Your task to perform on an android device: turn on translation in the chrome app Image 0: 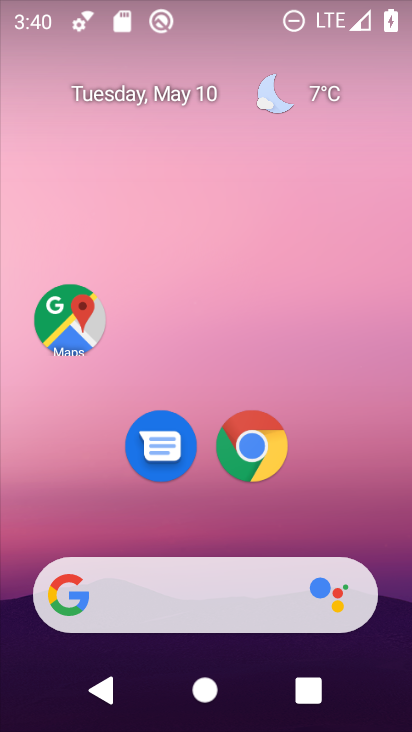
Step 0: click (259, 439)
Your task to perform on an android device: turn on translation in the chrome app Image 1: 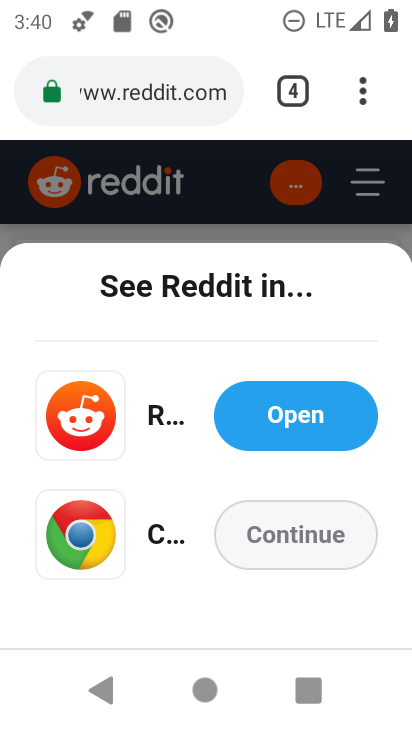
Step 1: click (361, 87)
Your task to perform on an android device: turn on translation in the chrome app Image 2: 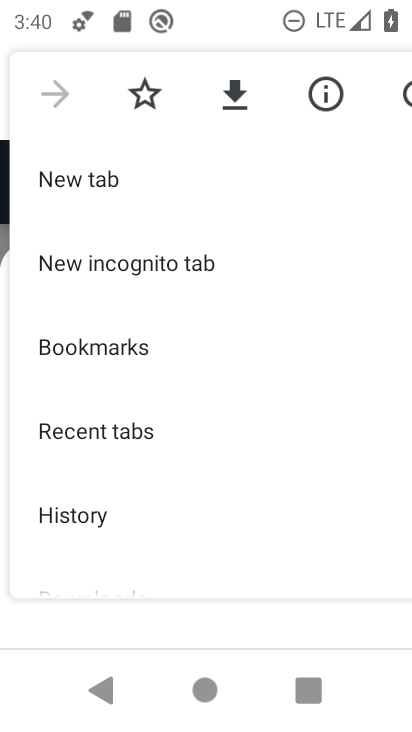
Step 2: drag from (223, 509) to (245, 161)
Your task to perform on an android device: turn on translation in the chrome app Image 3: 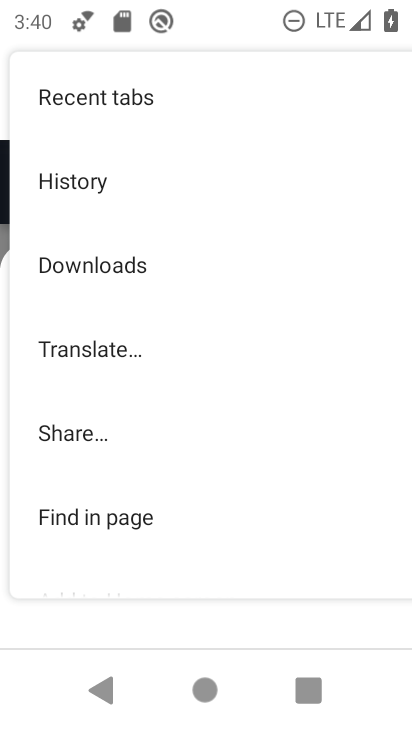
Step 3: drag from (190, 473) to (206, 151)
Your task to perform on an android device: turn on translation in the chrome app Image 4: 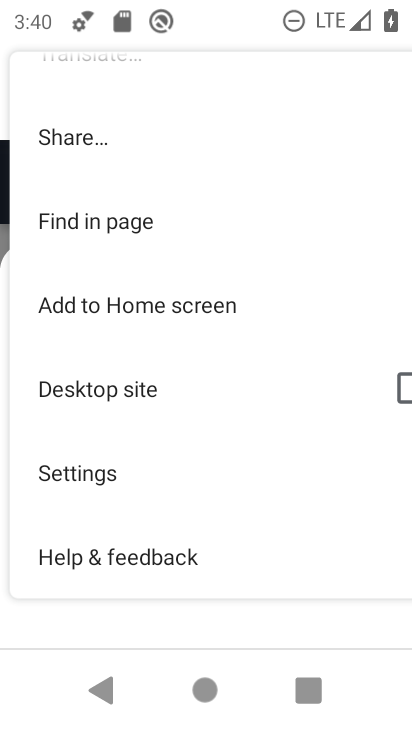
Step 4: click (127, 482)
Your task to perform on an android device: turn on translation in the chrome app Image 5: 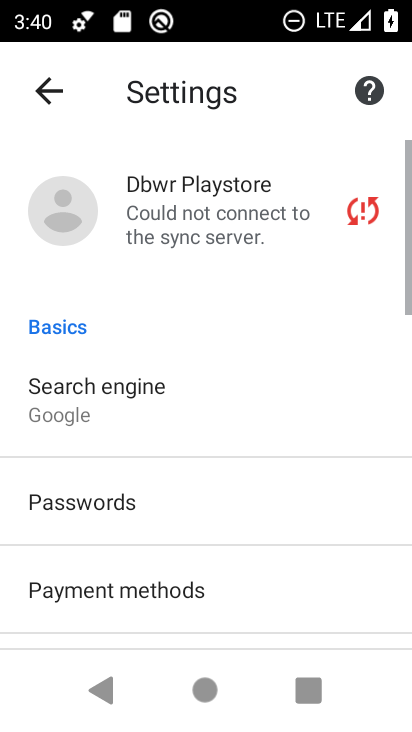
Step 5: drag from (203, 522) to (208, 168)
Your task to perform on an android device: turn on translation in the chrome app Image 6: 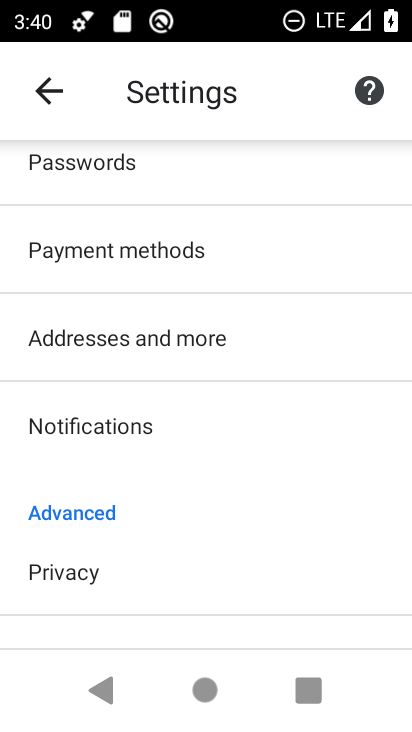
Step 6: drag from (165, 318) to (171, 257)
Your task to perform on an android device: turn on translation in the chrome app Image 7: 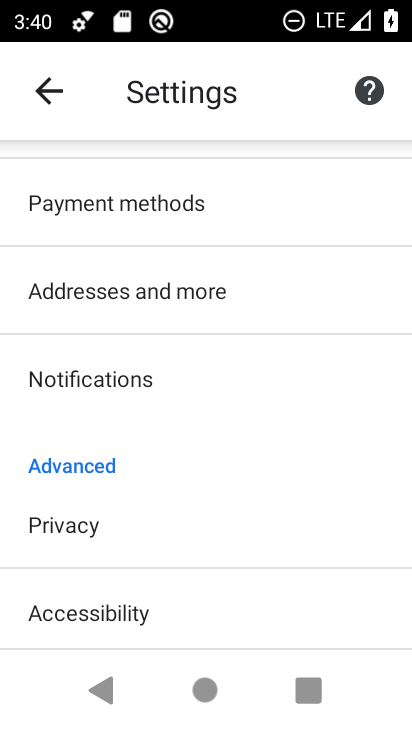
Step 7: drag from (170, 515) to (165, 296)
Your task to perform on an android device: turn on translation in the chrome app Image 8: 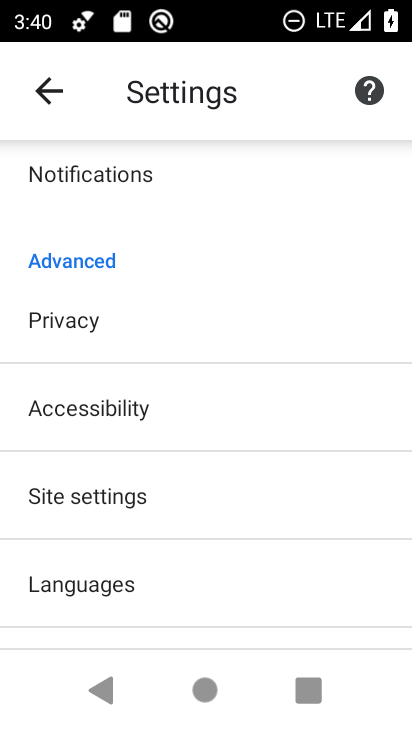
Step 8: click (152, 572)
Your task to perform on an android device: turn on translation in the chrome app Image 9: 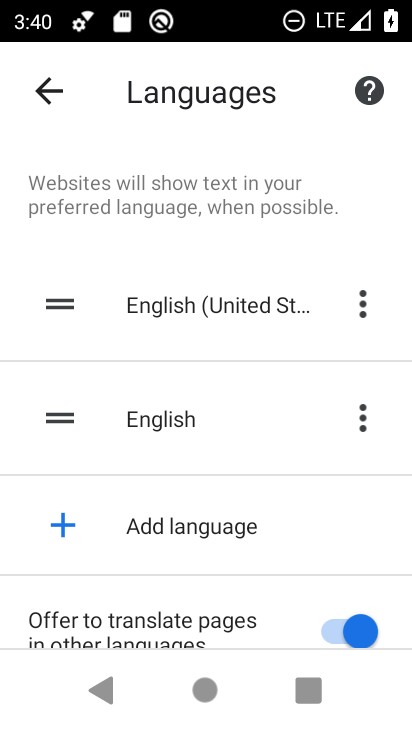
Step 9: task complete